Your task to perform on an android device: Go to sound settings Image 0: 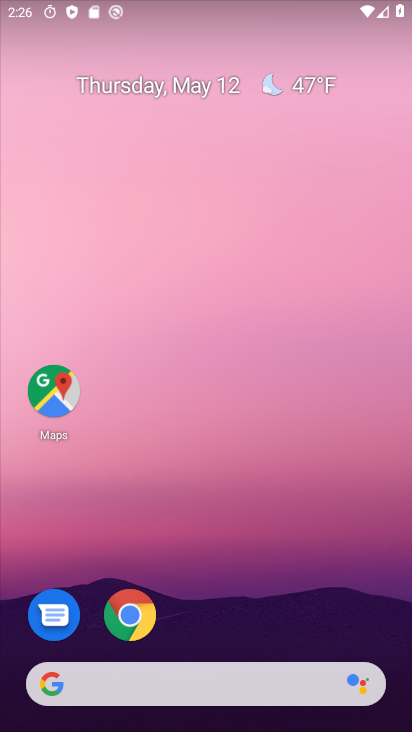
Step 0: drag from (230, 619) to (285, 110)
Your task to perform on an android device: Go to sound settings Image 1: 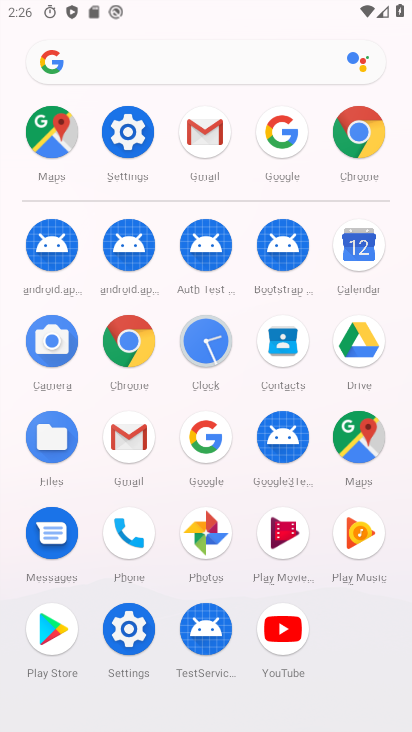
Step 1: click (135, 134)
Your task to perform on an android device: Go to sound settings Image 2: 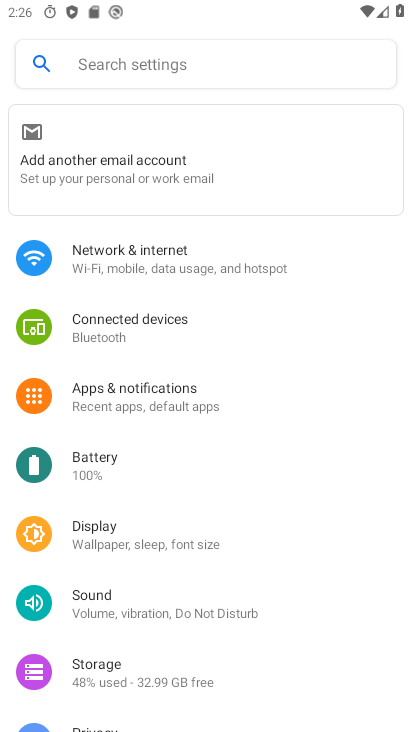
Step 2: click (124, 615)
Your task to perform on an android device: Go to sound settings Image 3: 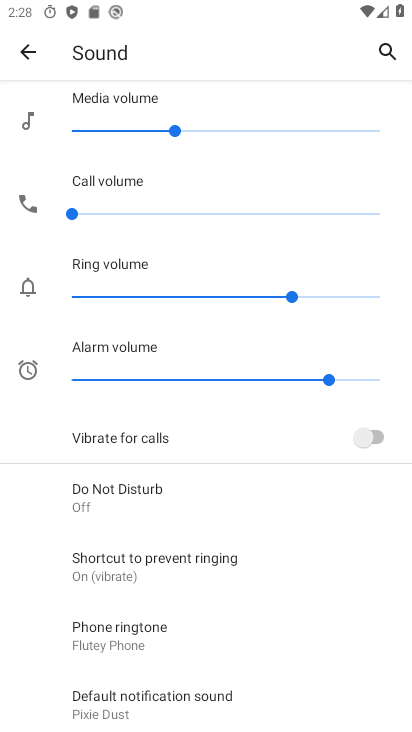
Step 3: task complete